Your task to perform on an android device: Show me recent news Image 0: 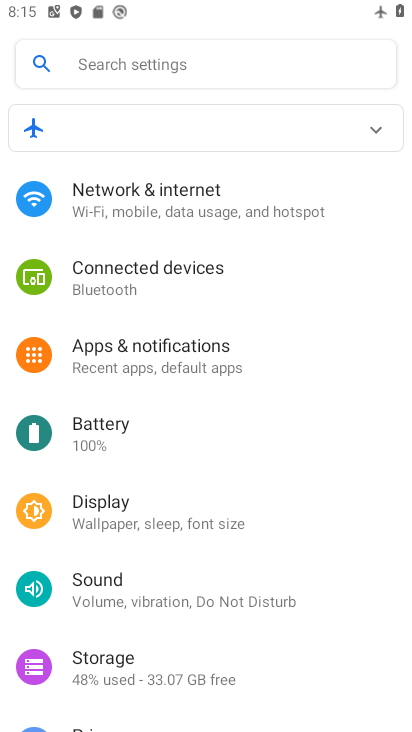
Step 0: press home button
Your task to perform on an android device: Show me recent news Image 1: 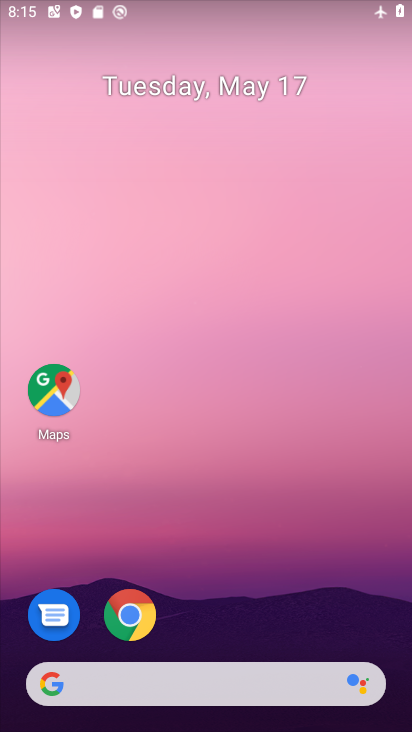
Step 1: drag from (238, 609) to (263, 274)
Your task to perform on an android device: Show me recent news Image 2: 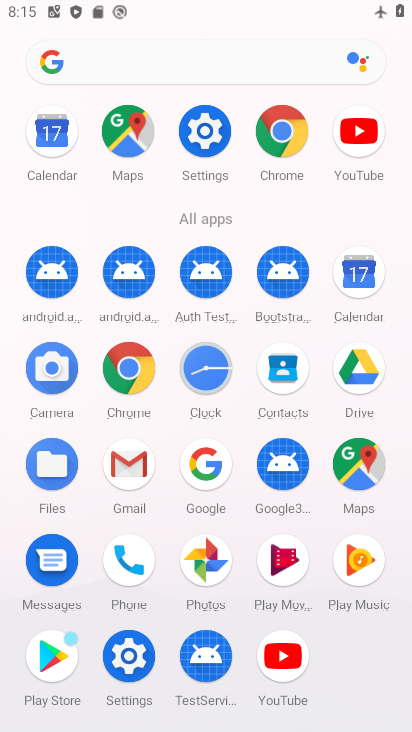
Step 2: click (278, 132)
Your task to perform on an android device: Show me recent news Image 3: 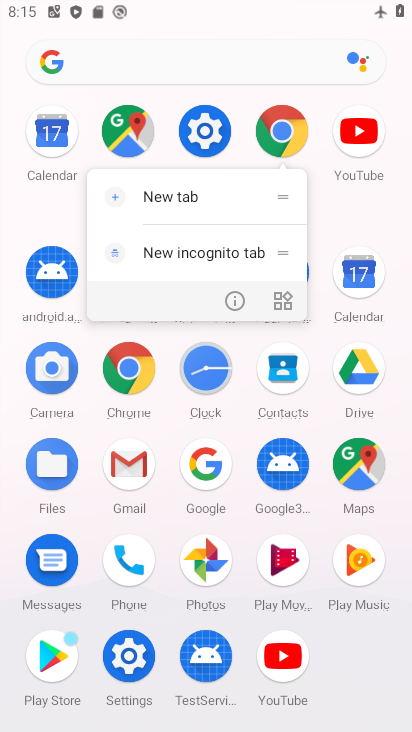
Step 3: click (282, 133)
Your task to perform on an android device: Show me recent news Image 4: 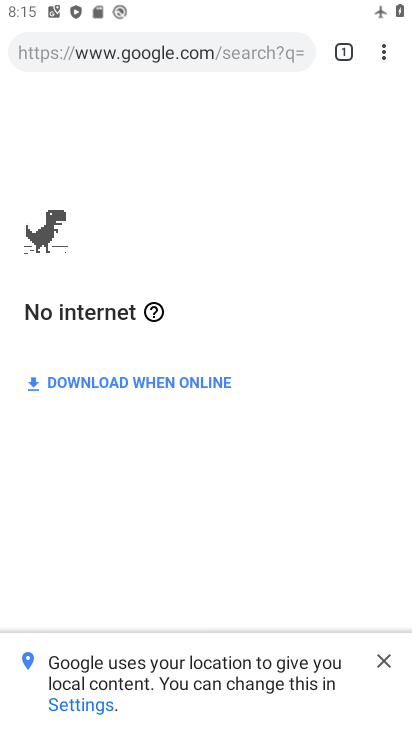
Step 4: click (386, 666)
Your task to perform on an android device: Show me recent news Image 5: 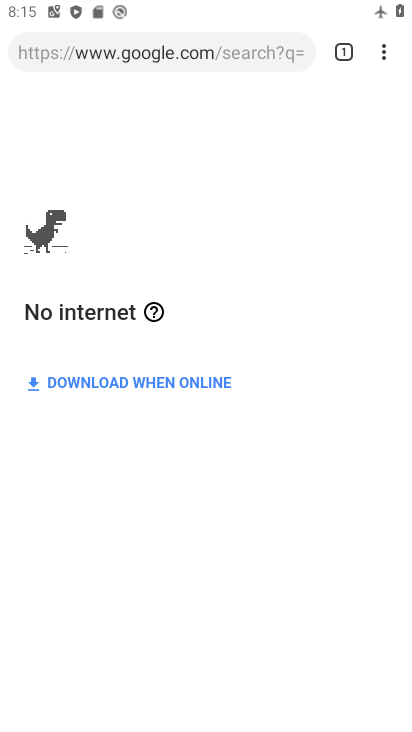
Step 5: click (382, 53)
Your task to perform on an android device: Show me recent news Image 6: 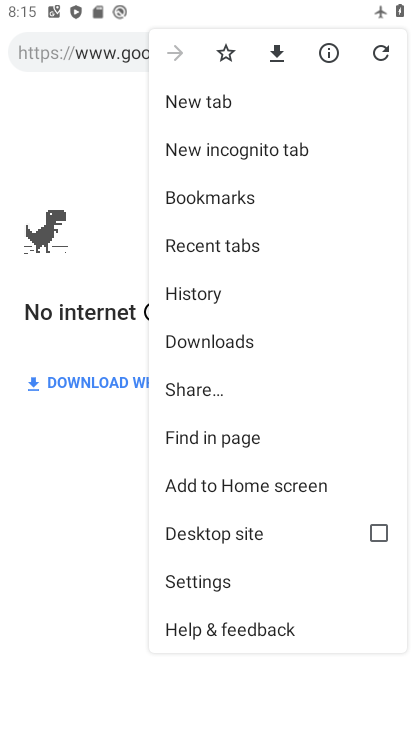
Step 6: click (270, 98)
Your task to perform on an android device: Show me recent news Image 7: 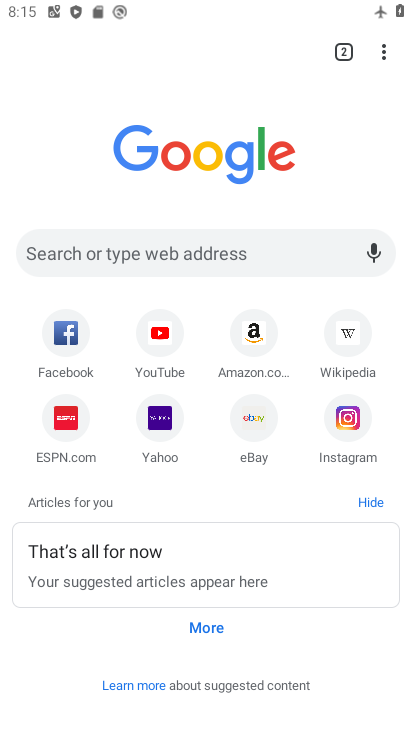
Step 7: click (186, 258)
Your task to perform on an android device: Show me recent news Image 8: 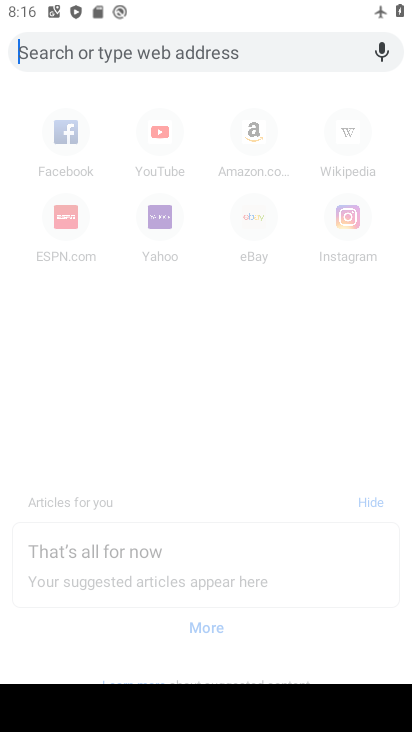
Step 8: type " recent news"
Your task to perform on an android device: Show me recent news Image 9: 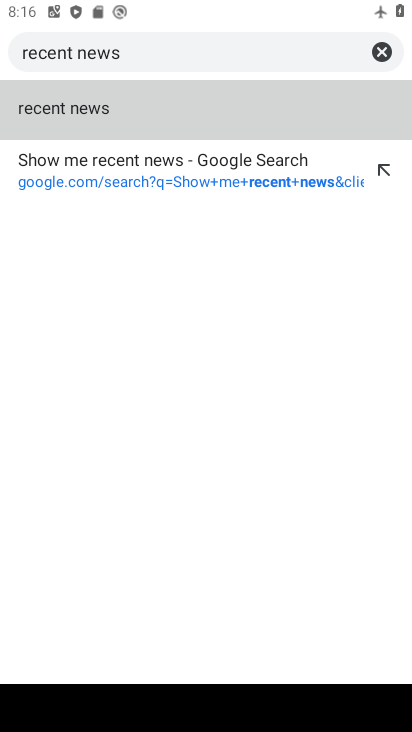
Step 9: click (182, 109)
Your task to perform on an android device: Show me recent news Image 10: 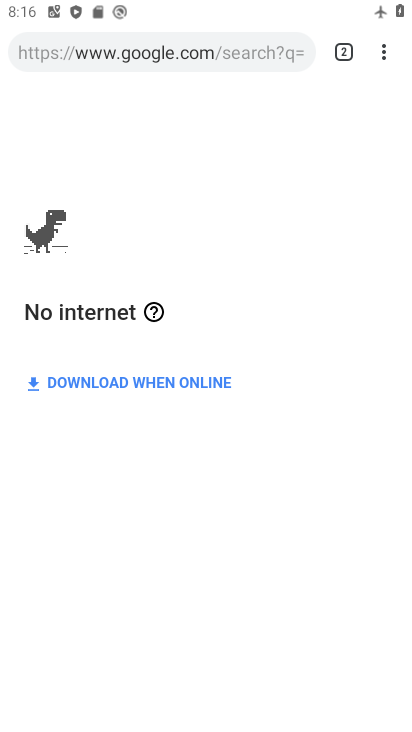
Step 10: task complete